Your task to perform on an android device: Clear the shopping cart on bestbuy. Add "bose soundlink mini" to the cart on bestbuy Image 0: 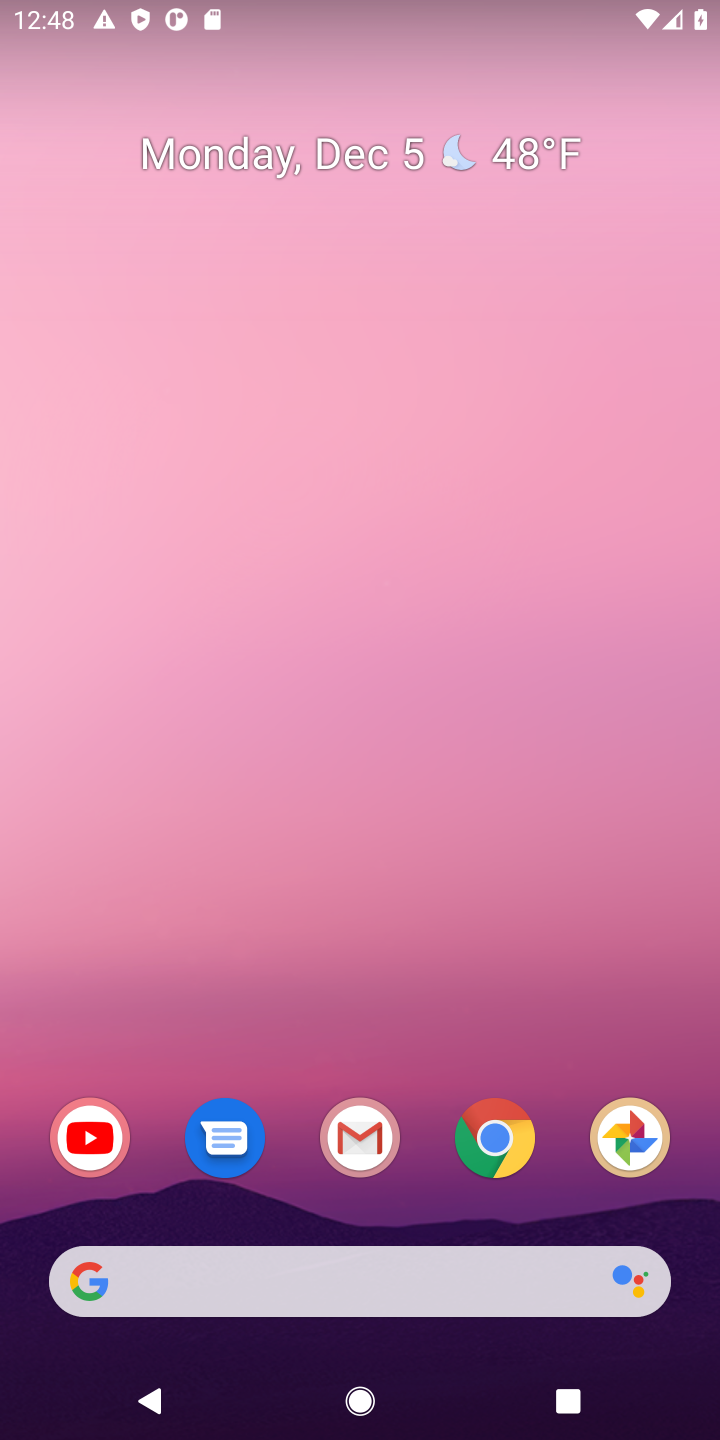
Step 0: click (487, 1142)
Your task to perform on an android device: Clear the shopping cart on bestbuy. Add "bose soundlink mini" to the cart on bestbuy Image 1: 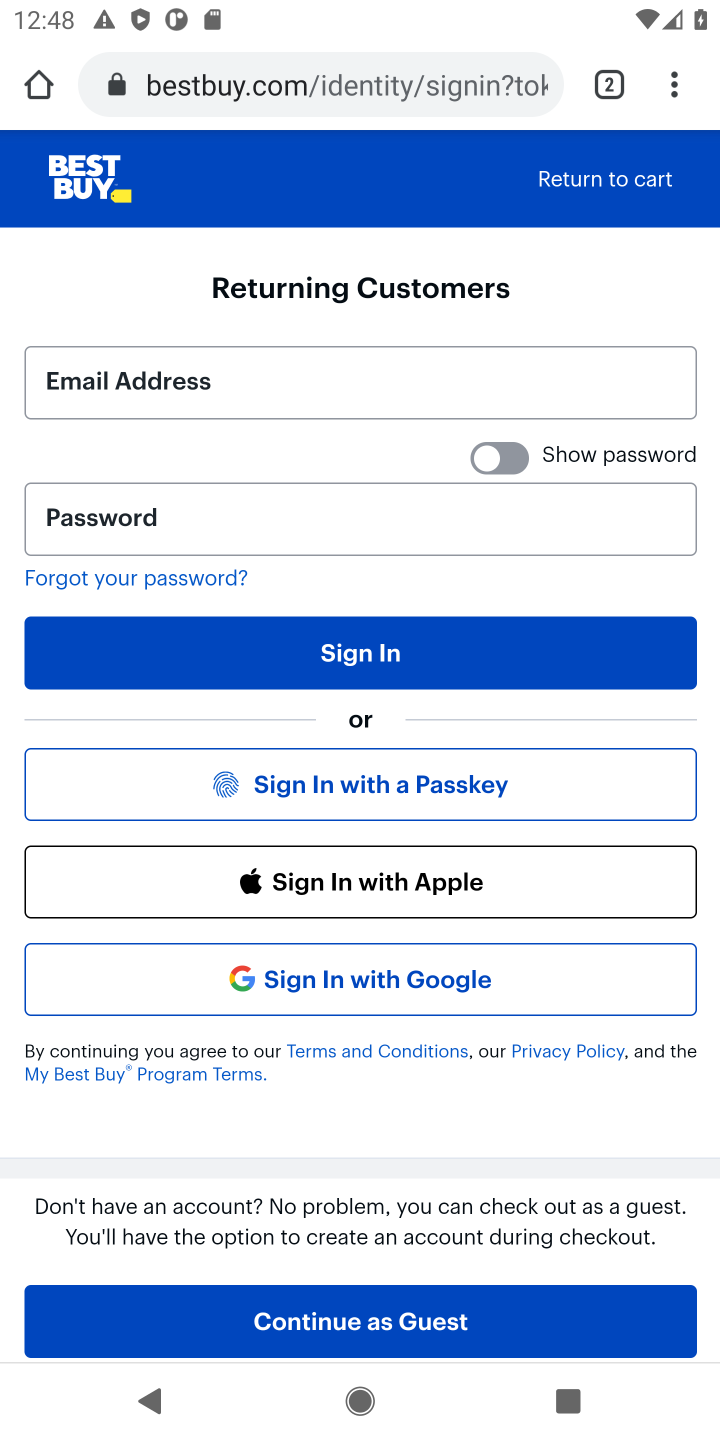
Step 1: click (629, 185)
Your task to perform on an android device: Clear the shopping cart on bestbuy. Add "bose soundlink mini" to the cart on bestbuy Image 2: 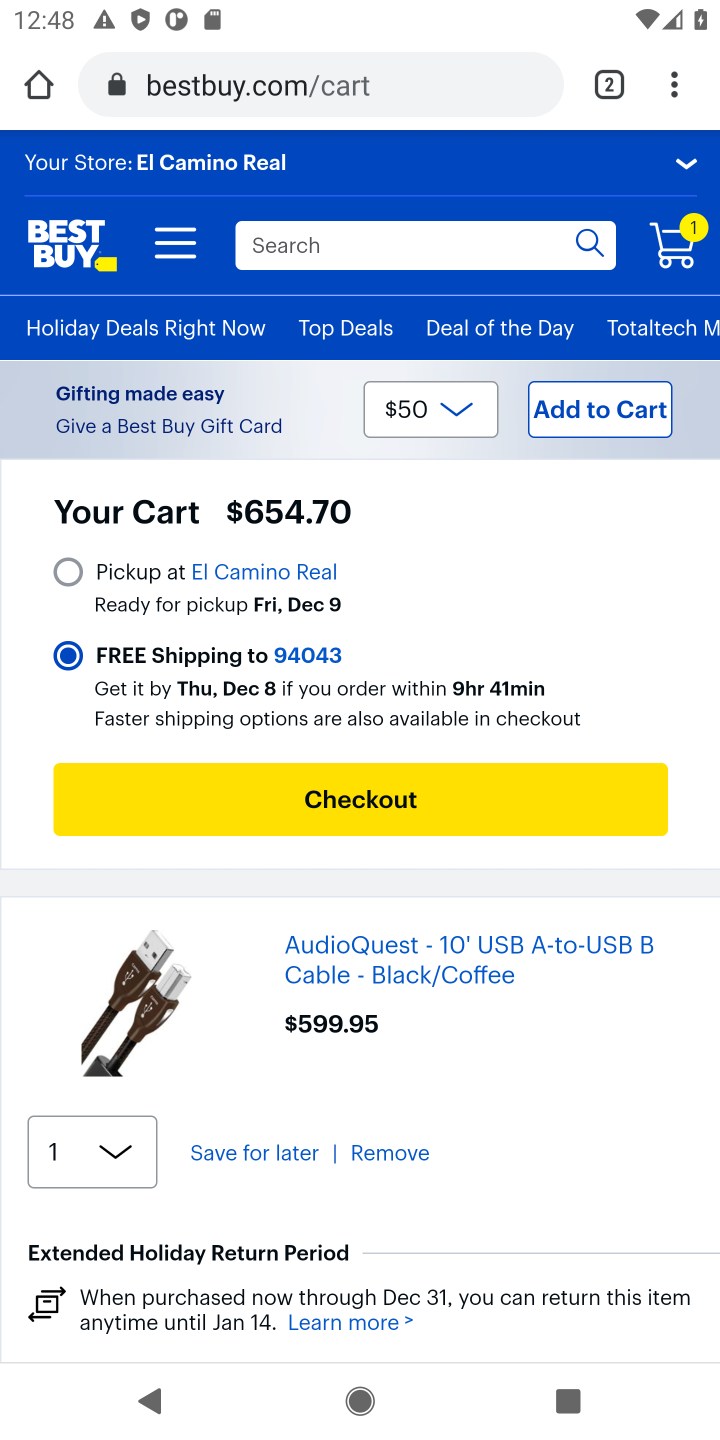
Step 2: click (401, 1149)
Your task to perform on an android device: Clear the shopping cart on bestbuy. Add "bose soundlink mini" to the cart on bestbuy Image 3: 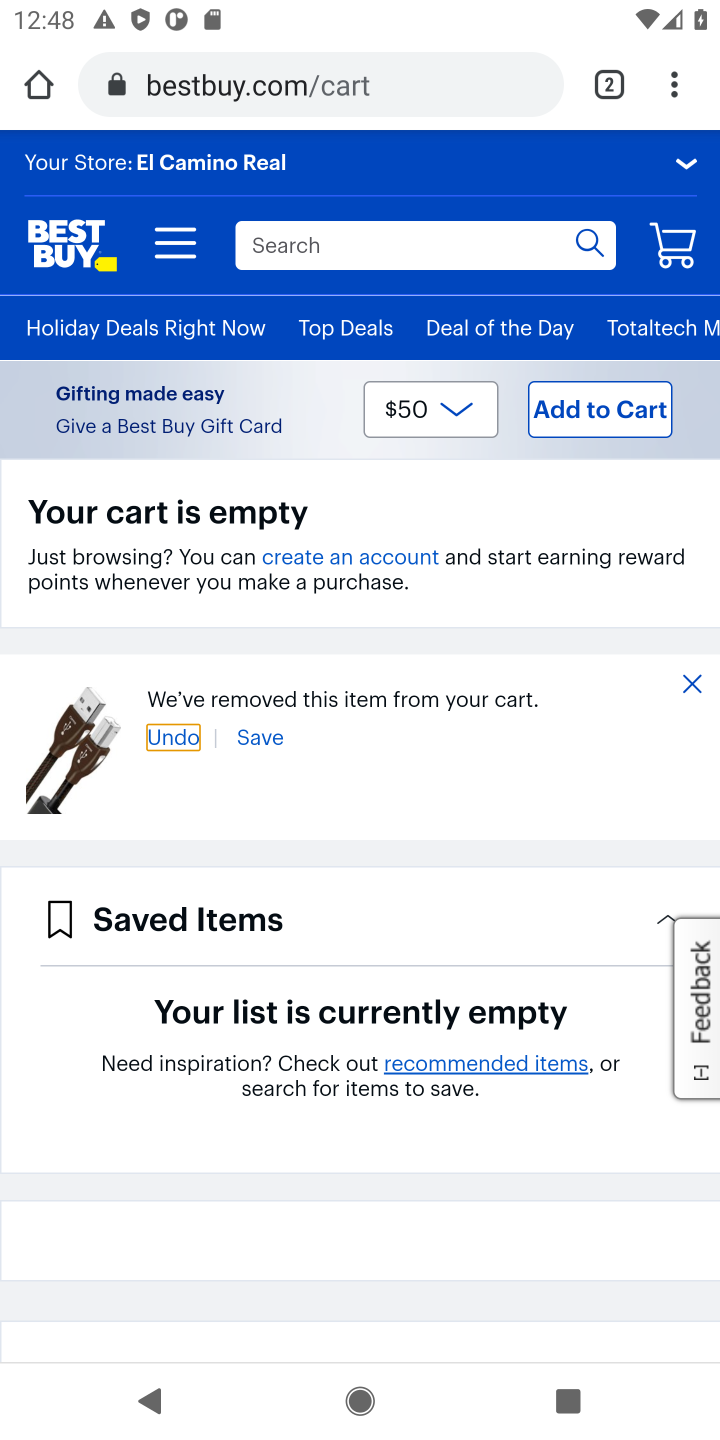
Step 3: click (344, 253)
Your task to perform on an android device: Clear the shopping cart on bestbuy. Add "bose soundlink mini" to the cart on bestbuy Image 4: 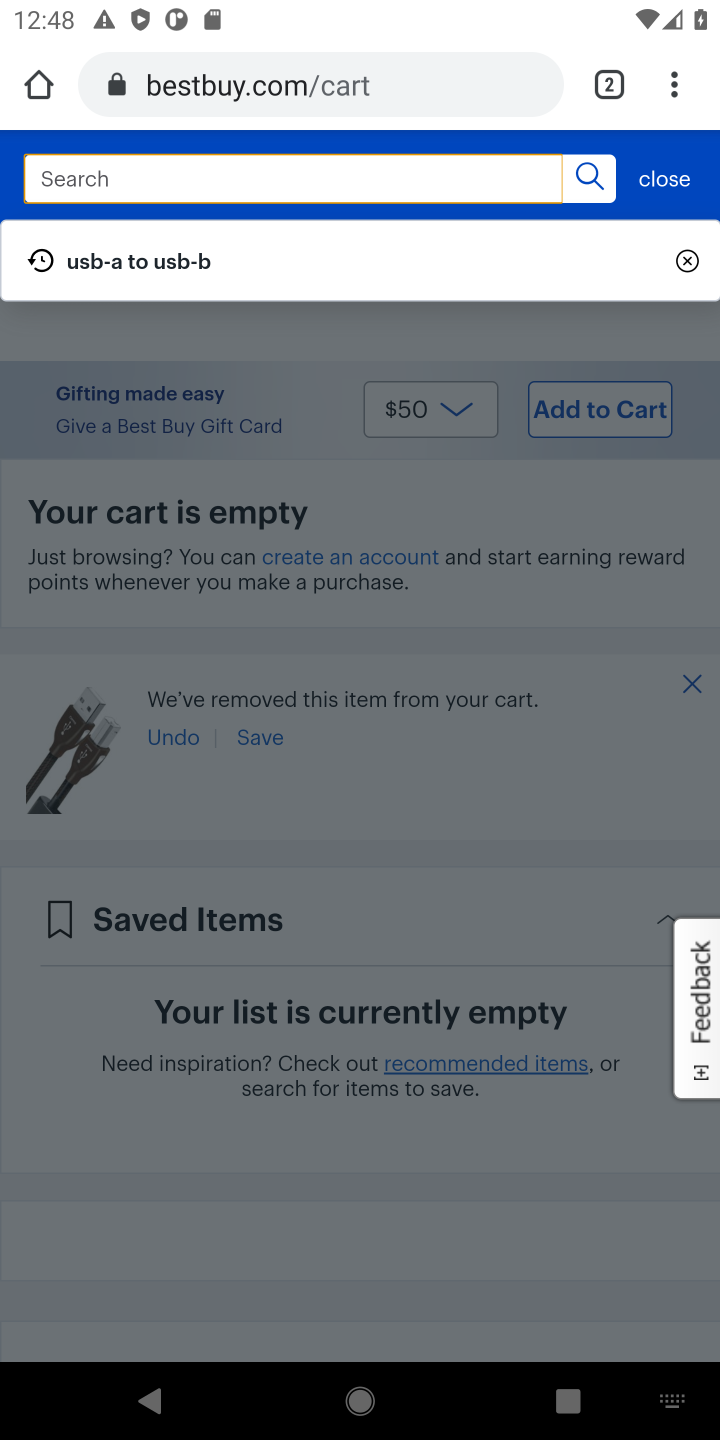
Step 4: type "bose soundlink mini"
Your task to perform on an android device: Clear the shopping cart on bestbuy. Add "bose soundlink mini" to the cart on bestbuy Image 5: 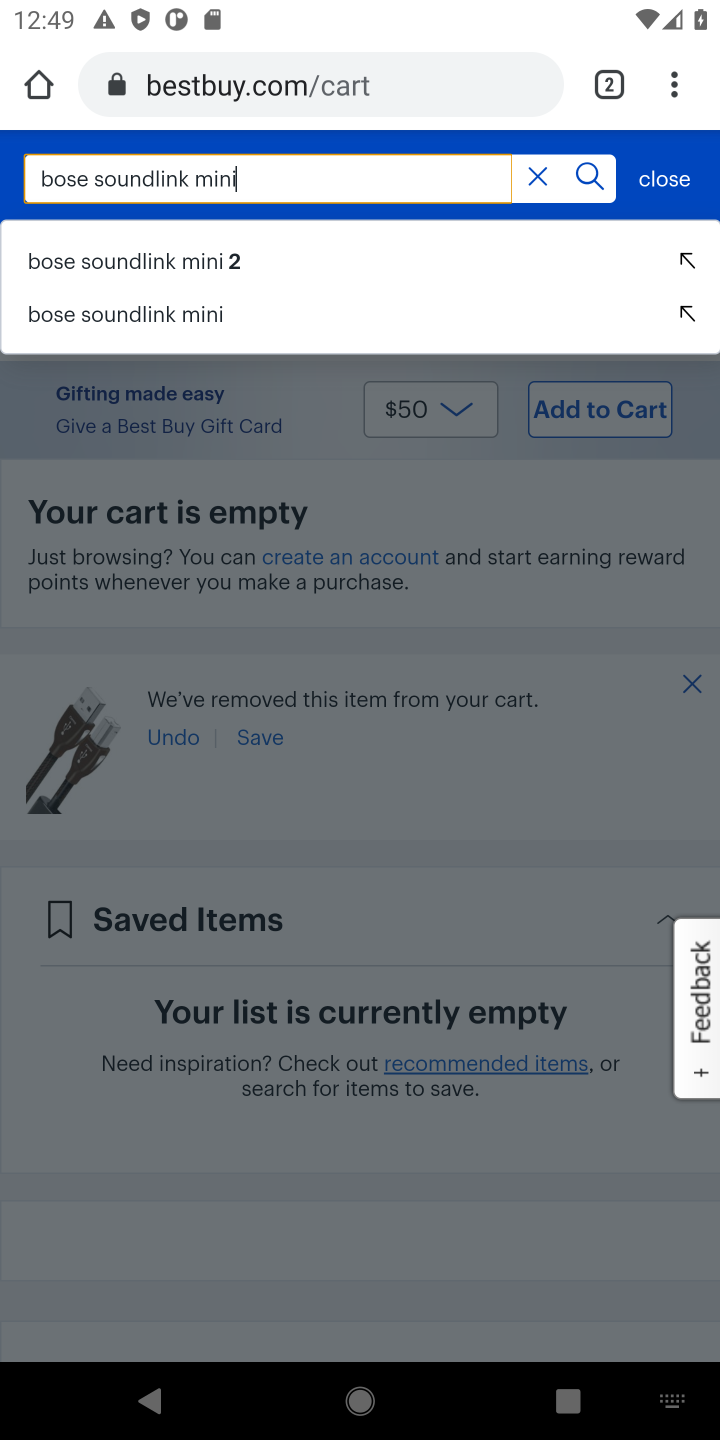
Step 5: click (599, 187)
Your task to perform on an android device: Clear the shopping cart on bestbuy. Add "bose soundlink mini" to the cart on bestbuy Image 6: 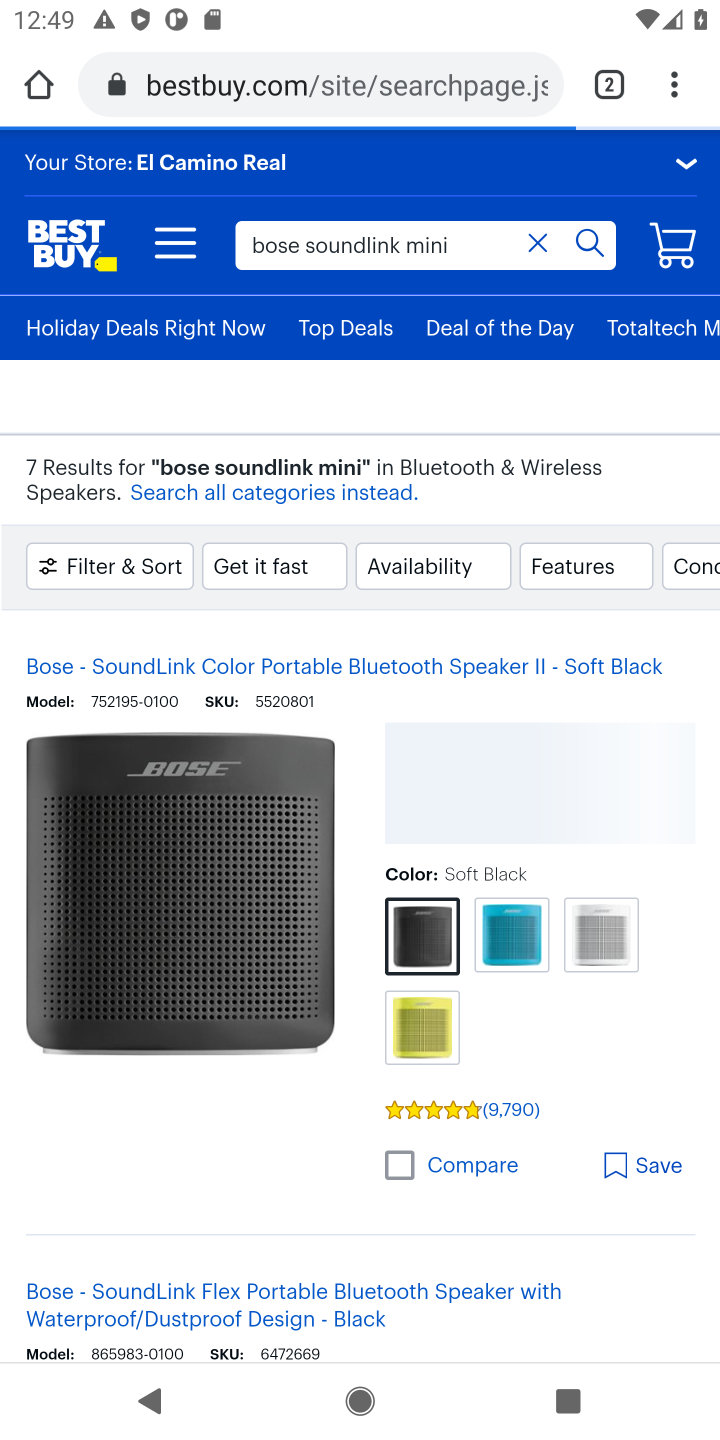
Step 6: click (594, 185)
Your task to perform on an android device: Clear the shopping cart on bestbuy. Add "bose soundlink mini" to the cart on bestbuy Image 7: 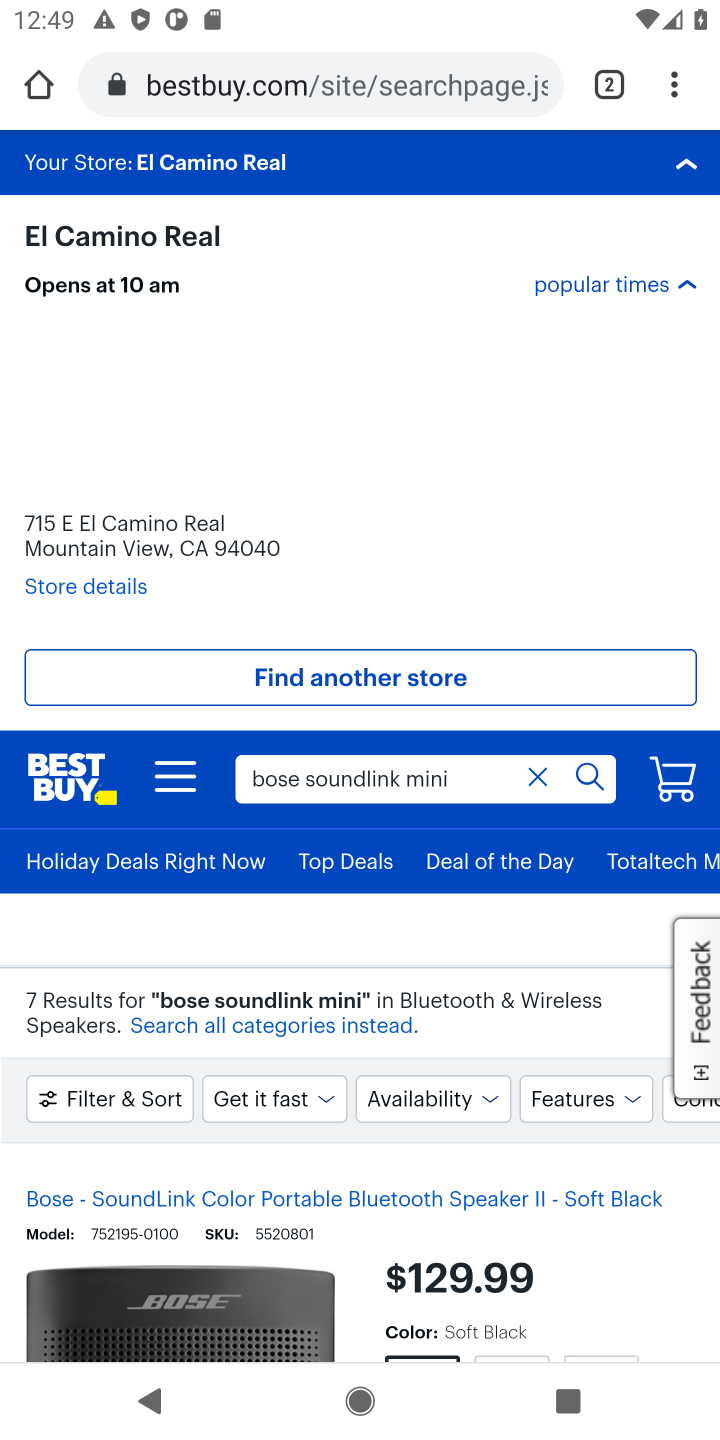
Step 7: drag from (386, 1045) to (457, 421)
Your task to perform on an android device: Clear the shopping cart on bestbuy. Add "bose soundlink mini" to the cart on bestbuy Image 8: 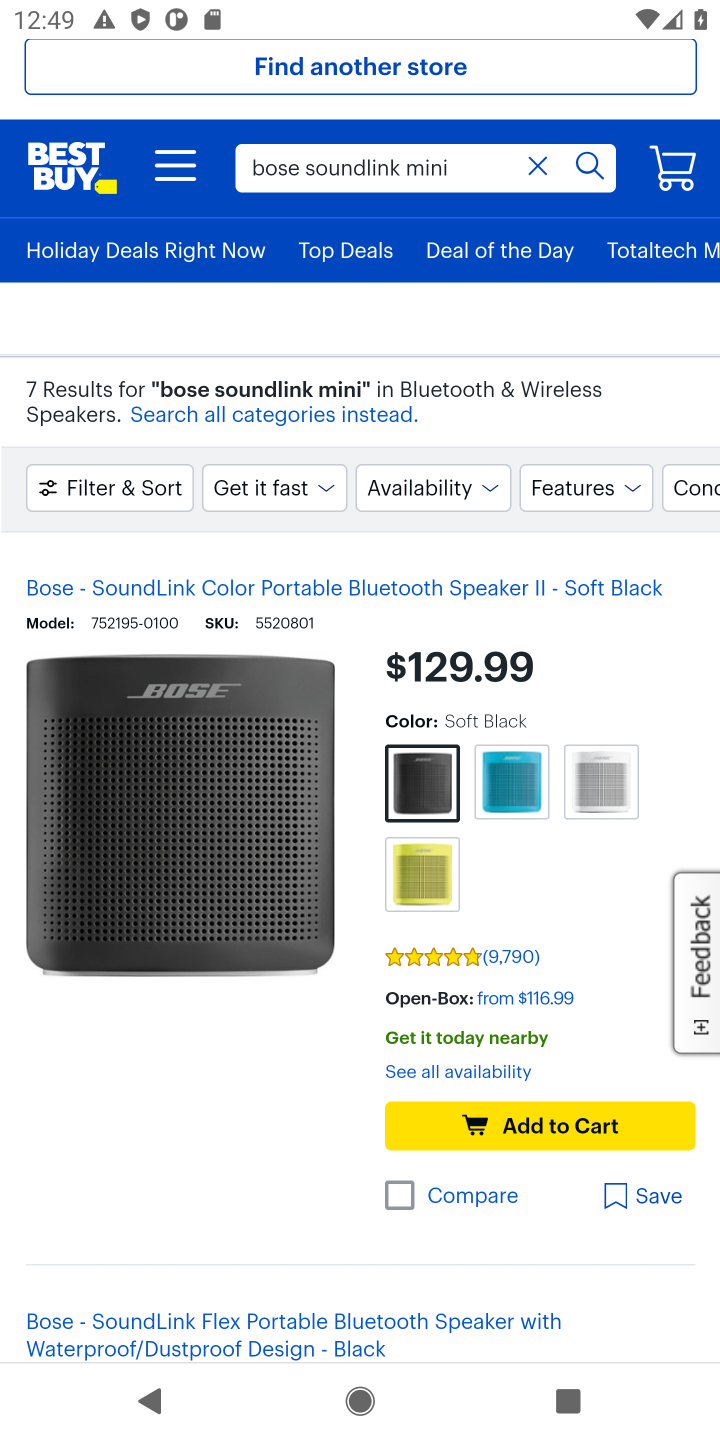
Step 8: click (560, 1127)
Your task to perform on an android device: Clear the shopping cart on bestbuy. Add "bose soundlink mini" to the cart on bestbuy Image 9: 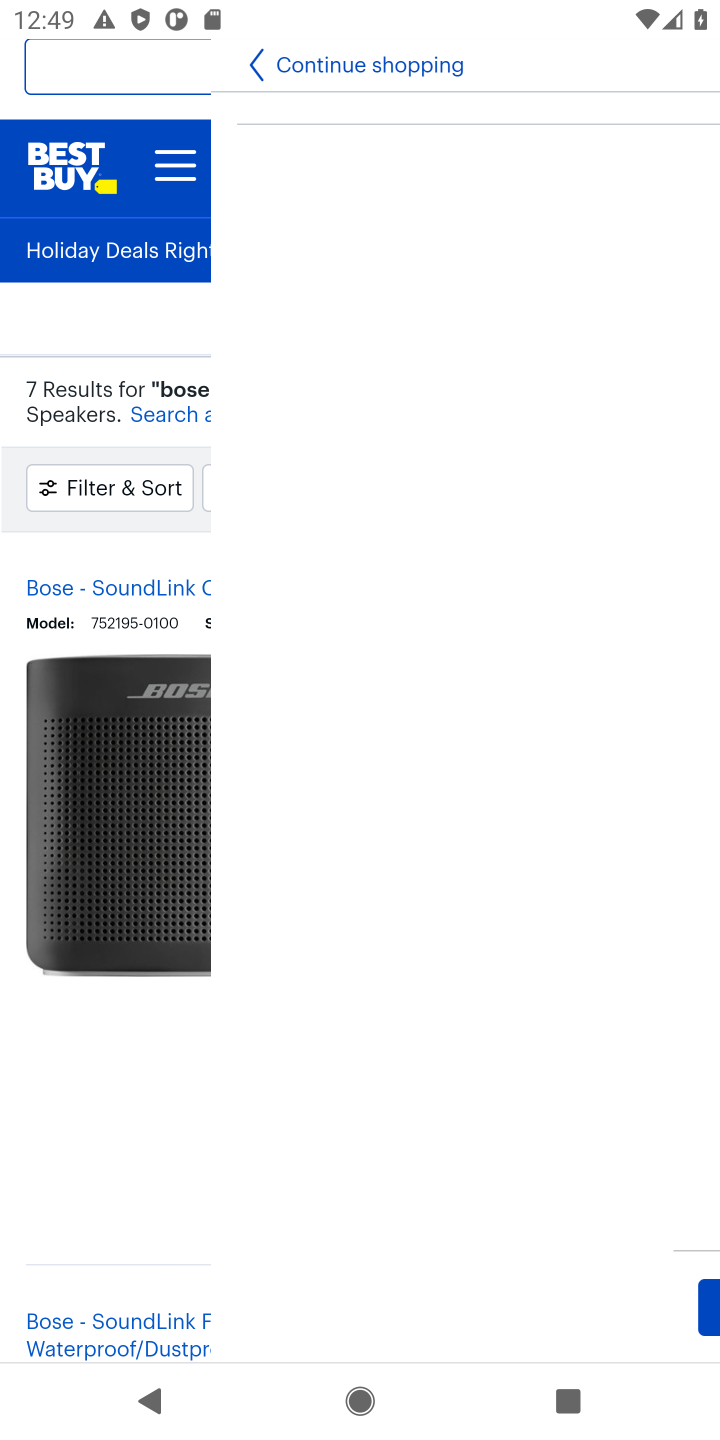
Step 9: task complete